Your task to perform on an android device: snooze an email in the gmail app Image 0: 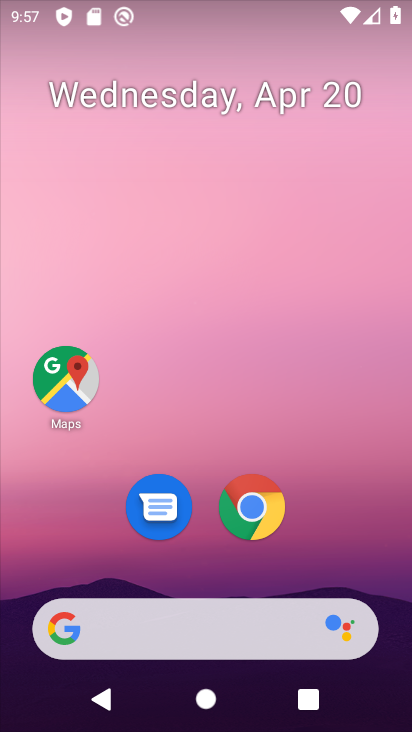
Step 0: drag from (220, 595) to (209, 156)
Your task to perform on an android device: snooze an email in the gmail app Image 1: 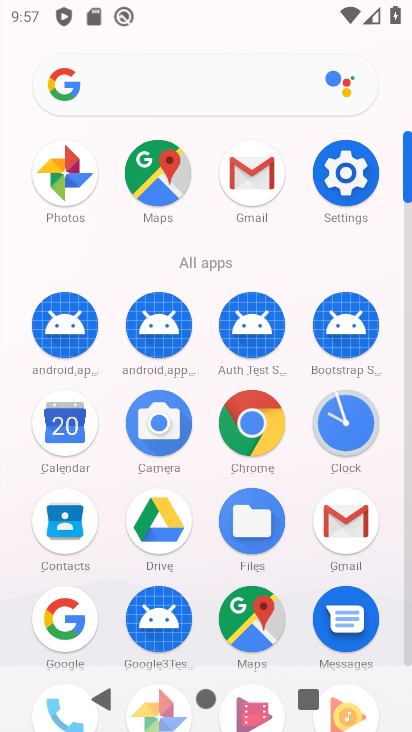
Step 1: click (245, 190)
Your task to perform on an android device: snooze an email in the gmail app Image 2: 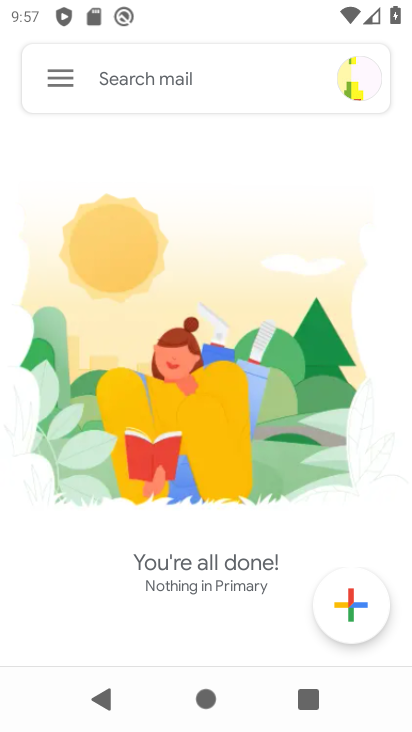
Step 2: click (65, 76)
Your task to perform on an android device: snooze an email in the gmail app Image 3: 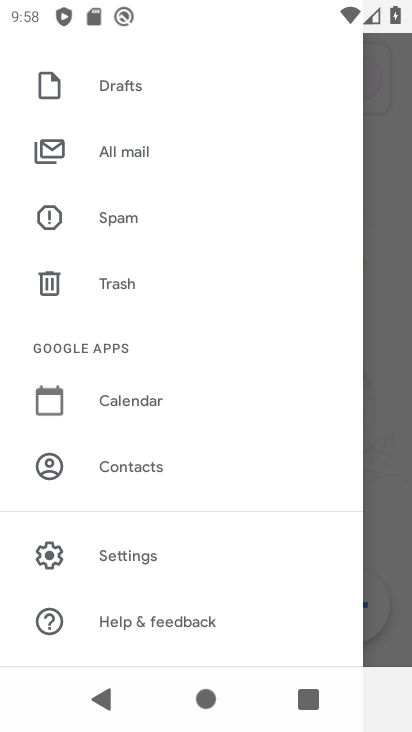
Step 3: task complete